Your task to perform on an android device: read, delete, or share a saved page in the chrome app Image 0: 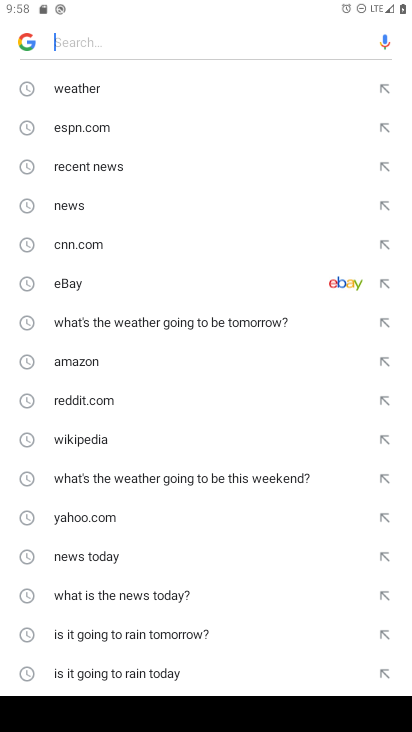
Step 0: press home button
Your task to perform on an android device: read, delete, or share a saved page in the chrome app Image 1: 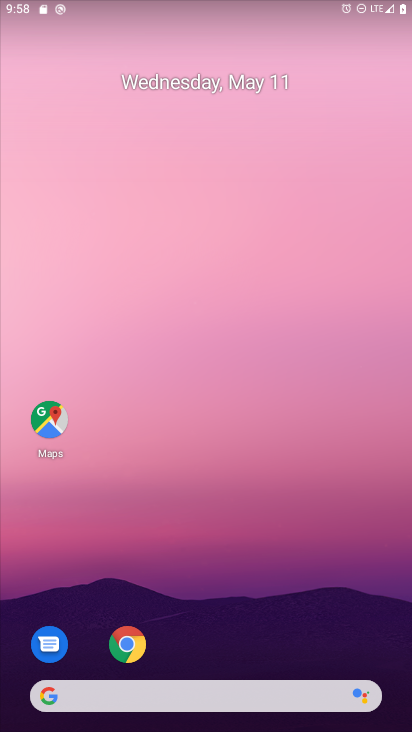
Step 1: click (130, 641)
Your task to perform on an android device: read, delete, or share a saved page in the chrome app Image 2: 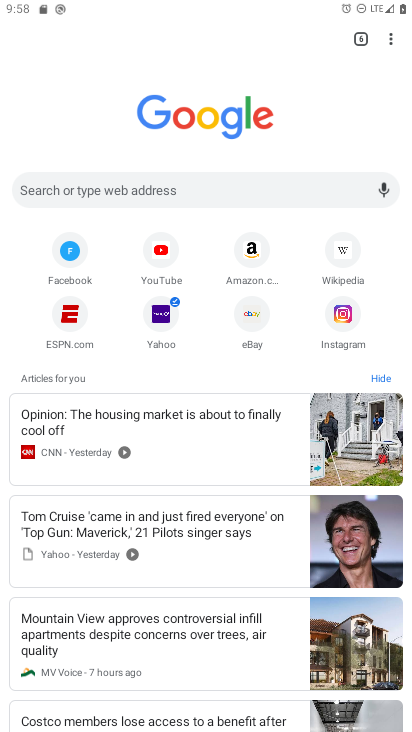
Step 2: click (388, 35)
Your task to perform on an android device: read, delete, or share a saved page in the chrome app Image 3: 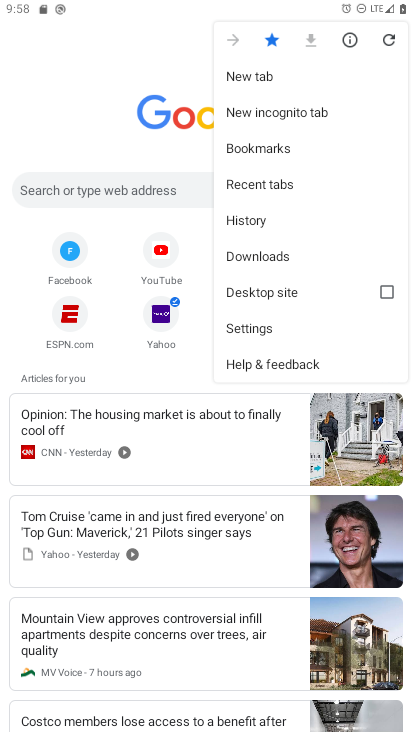
Step 3: click (267, 254)
Your task to perform on an android device: read, delete, or share a saved page in the chrome app Image 4: 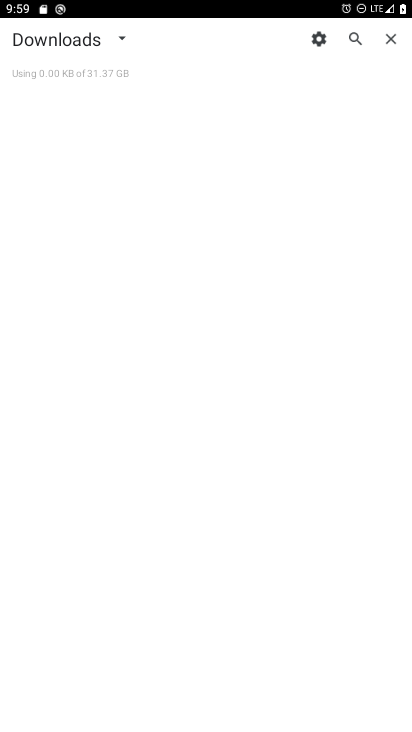
Step 4: task complete